Your task to perform on an android device: open app "Mercado Libre" (install if not already installed) Image 0: 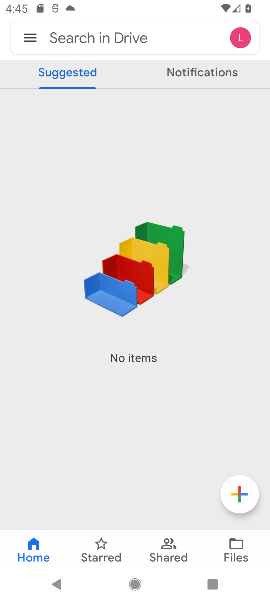
Step 0: press home button
Your task to perform on an android device: open app "Mercado Libre" (install if not already installed) Image 1: 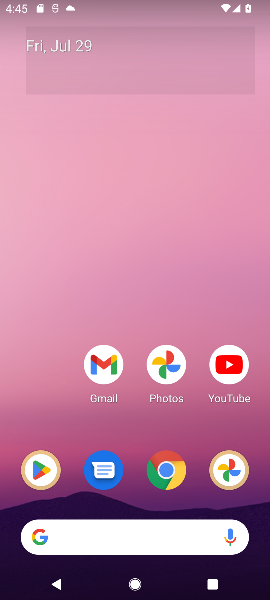
Step 1: click (38, 462)
Your task to perform on an android device: open app "Mercado Libre" (install if not already installed) Image 2: 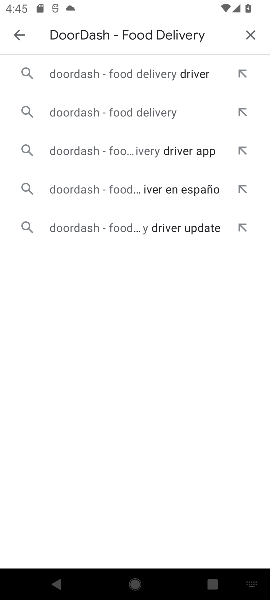
Step 2: click (253, 30)
Your task to perform on an android device: open app "Mercado Libre" (install if not already installed) Image 3: 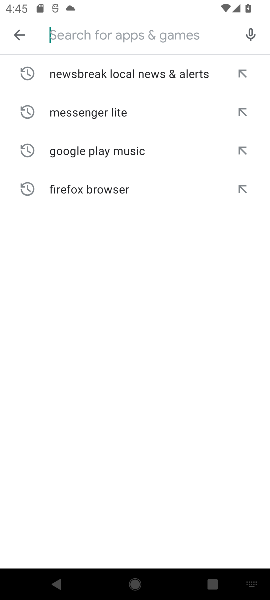
Step 3: click (162, 28)
Your task to perform on an android device: open app "Mercado Libre" (install if not already installed) Image 4: 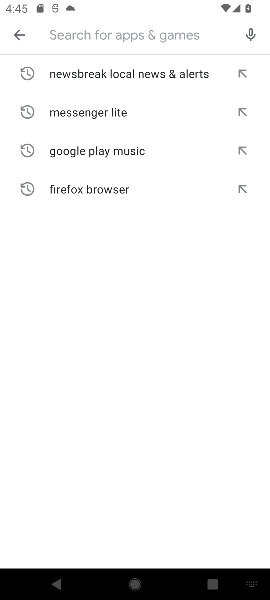
Step 4: type "Mercado Libre"
Your task to perform on an android device: open app "Mercado Libre" (install if not already installed) Image 5: 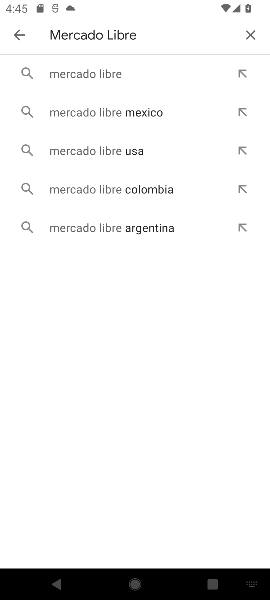
Step 5: click (86, 69)
Your task to perform on an android device: open app "Mercado Libre" (install if not already installed) Image 6: 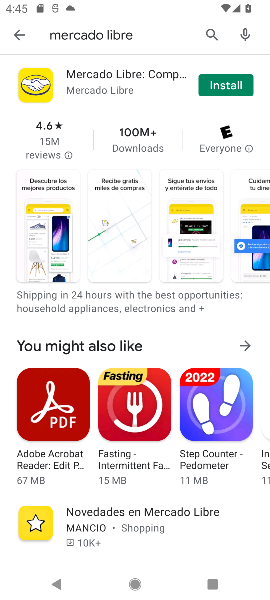
Step 6: click (220, 83)
Your task to perform on an android device: open app "Mercado Libre" (install if not already installed) Image 7: 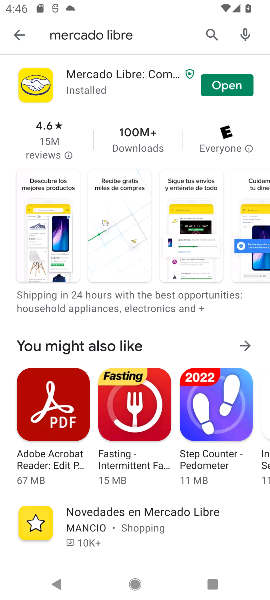
Step 7: click (238, 83)
Your task to perform on an android device: open app "Mercado Libre" (install if not already installed) Image 8: 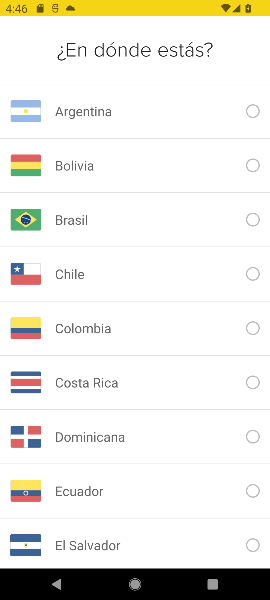
Step 8: task complete